Your task to perform on an android device: turn on data saver in the chrome app Image 0: 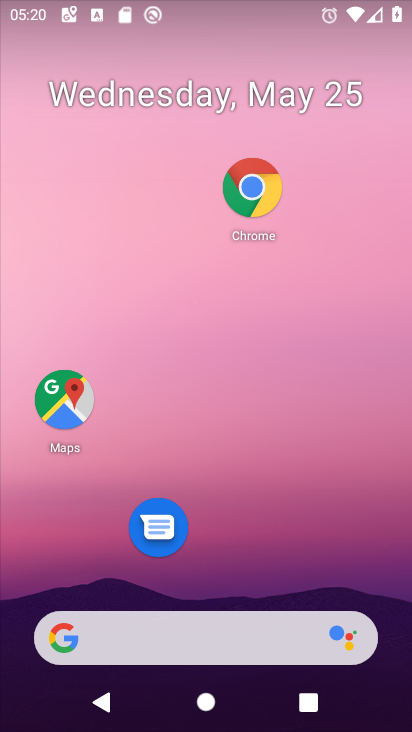
Step 0: drag from (284, 579) to (281, 9)
Your task to perform on an android device: turn on data saver in the chrome app Image 1: 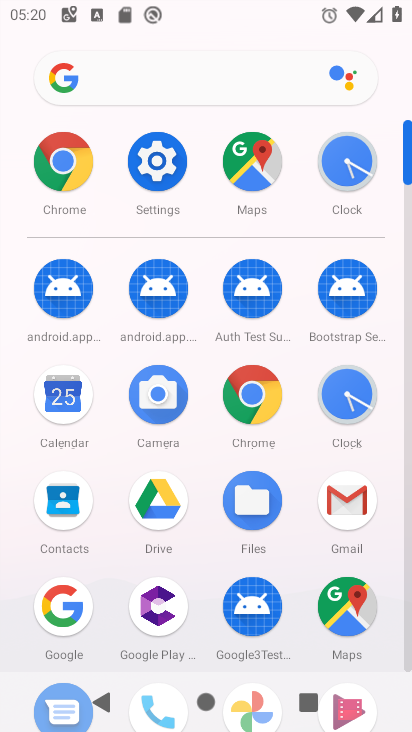
Step 1: click (61, 172)
Your task to perform on an android device: turn on data saver in the chrome app Image 2: 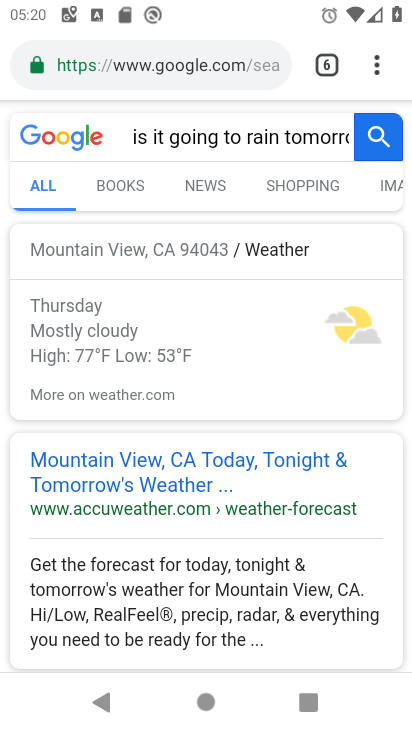
Step 2: click (374, 69)
Your task to perform on an android device: turn on data saver in the chrome app Image 3: 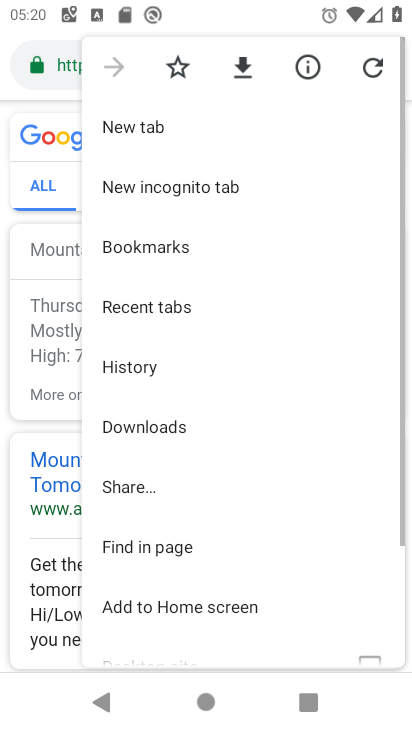
Step 3: drag from (232, 516) to (247, 205)
Your task to perform on an android device: turn on data saver in the chrome app Image 4: 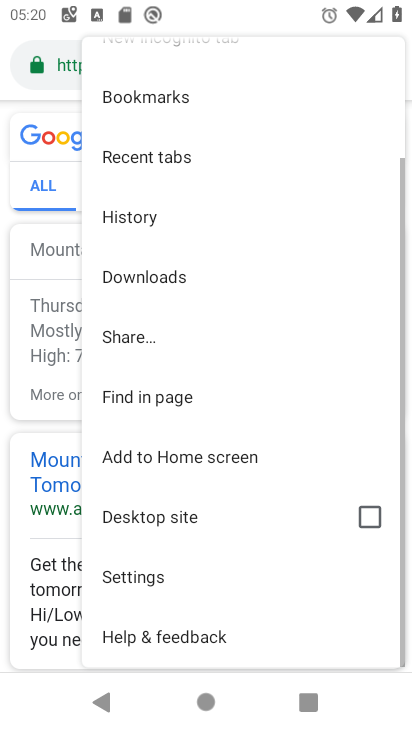
Step 4: click (152, 581)
Your task to perform on an android device: turn on data saver in the chrome app Image 5: 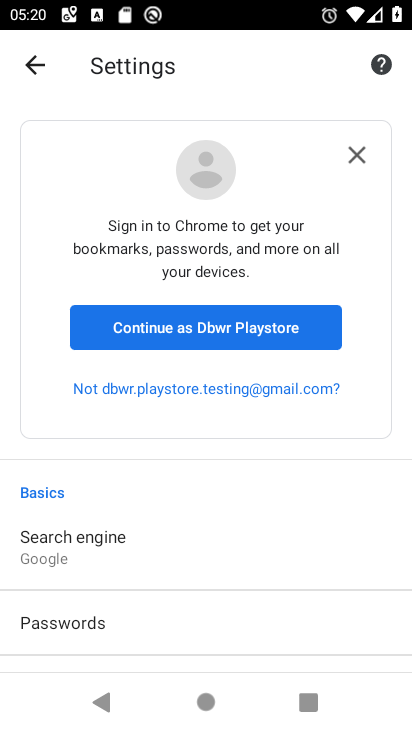
Step 5: drag from (205, 573) to (274, 159)
Your task to perform on an android device: turn on data saver in the chrome app Image 6: 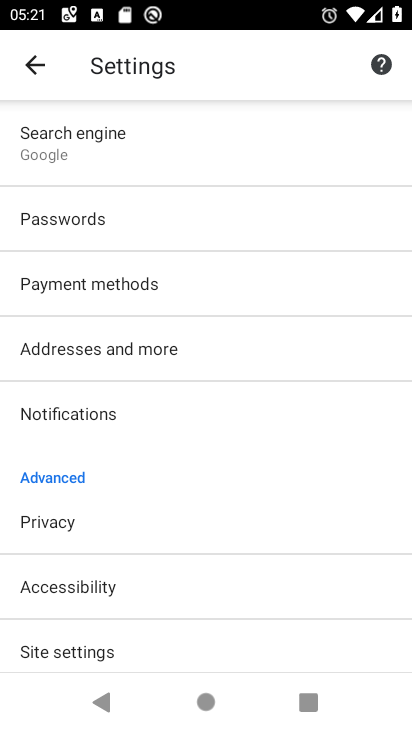
Step 6: drag from (156, 647) to (220, 396)
Your task to perform on an android device: turn on data saver in the chrome app Image 7: 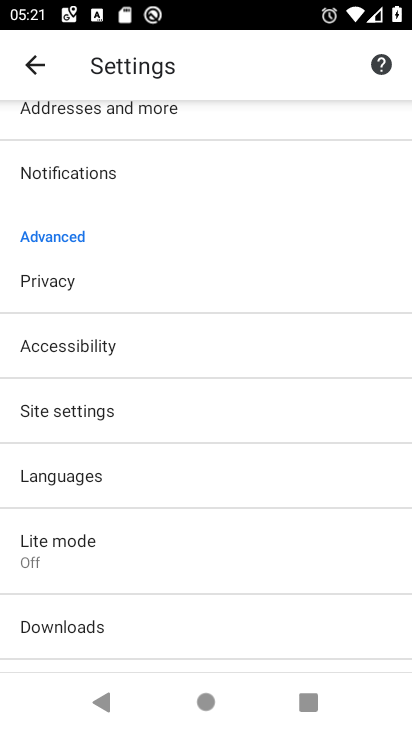
Step 7: click (96, 543)
Your task to perform on an android device: turn on data saver in the chrome app Image 8: 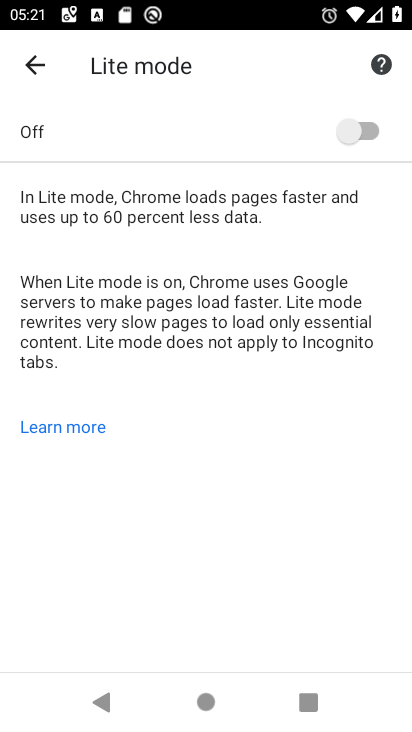
Step 8: click (367, 133)
Your task to perform on an android device: turn on data saver in the chrome app Image 9: 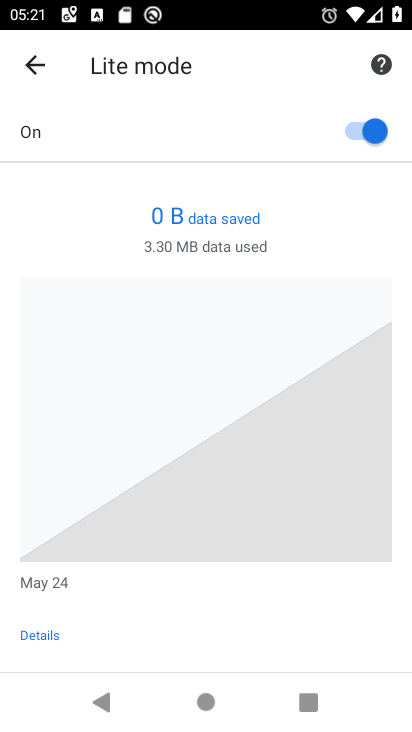
Step 9: task complete